Your task to perform on an android device: Search for "bose soundlink mini" on costco, select the first entry, and add it to the cart. Image 0: 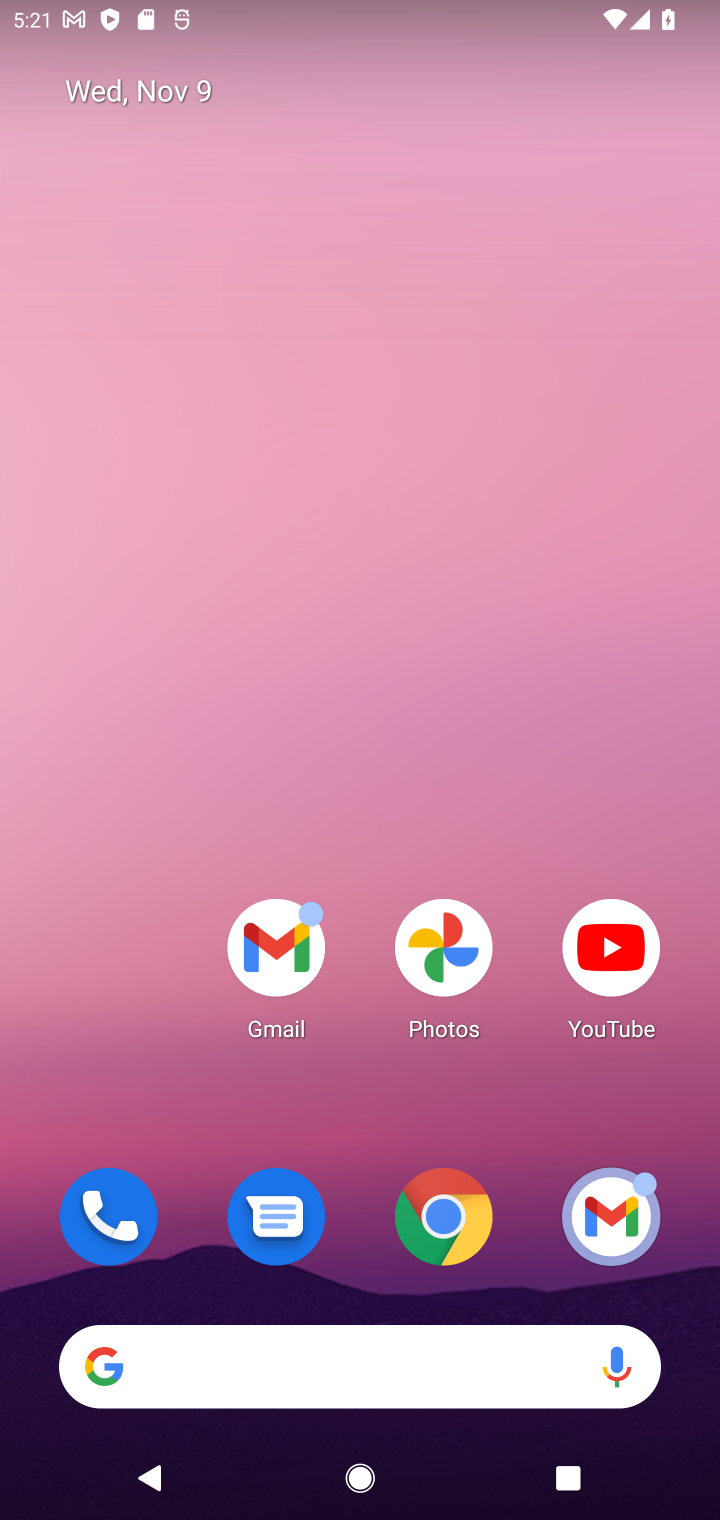
Step 0: drag from (358, 1126) to (412, 125)
Your task to perform on an android device: Search for "bose soundlink mini" on costco, select the first entry, and add it to the cart. Image 1: 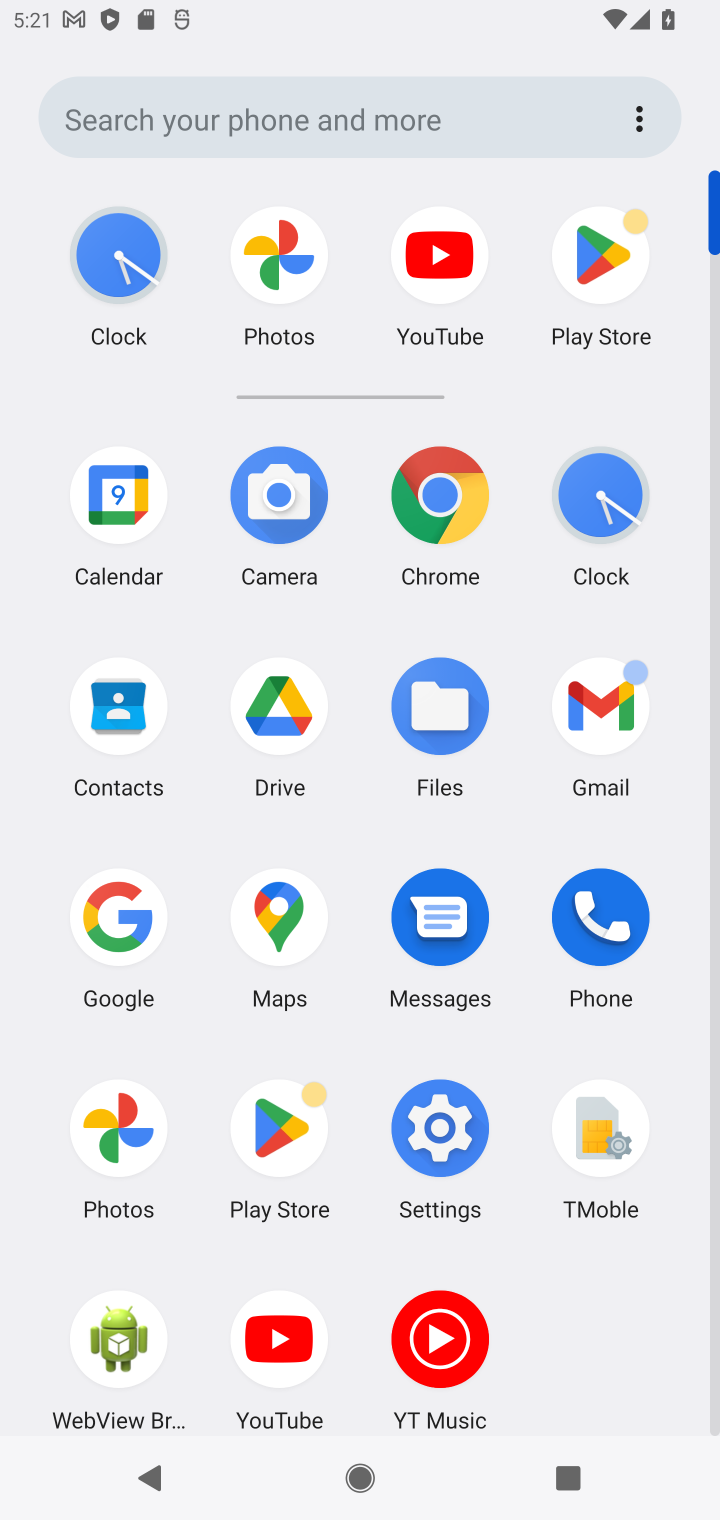
Step 1: click (440, 496)
Your task to perform on an android device: Search for "bose soundlink mini" on costco, select the first entry, and add it to the cart. Image 2: 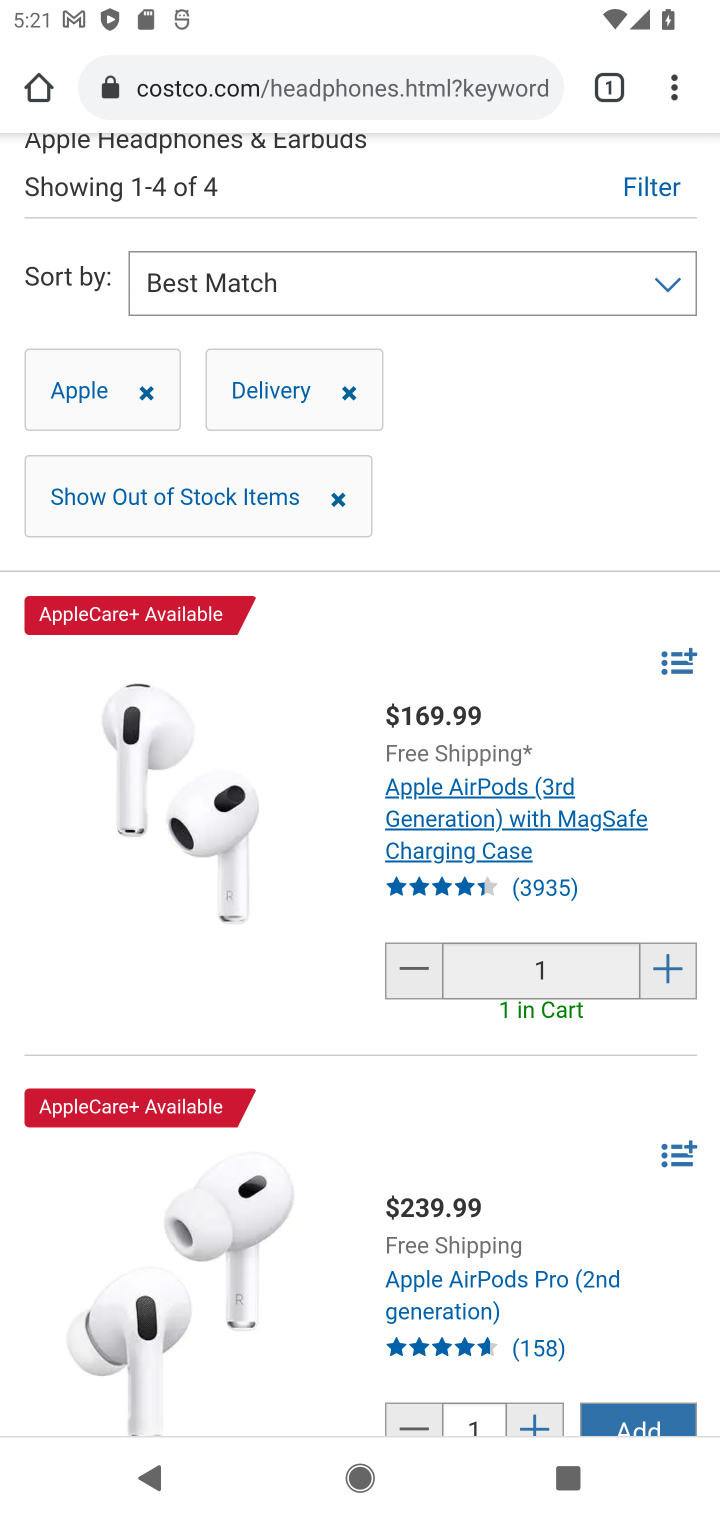
Step 2: drag from (392, 223) to (433, 861)
Your task to perform on an android device: Search for "bose soundlink mini" on costco, select the first entry, and add it to the cart. Image 3: 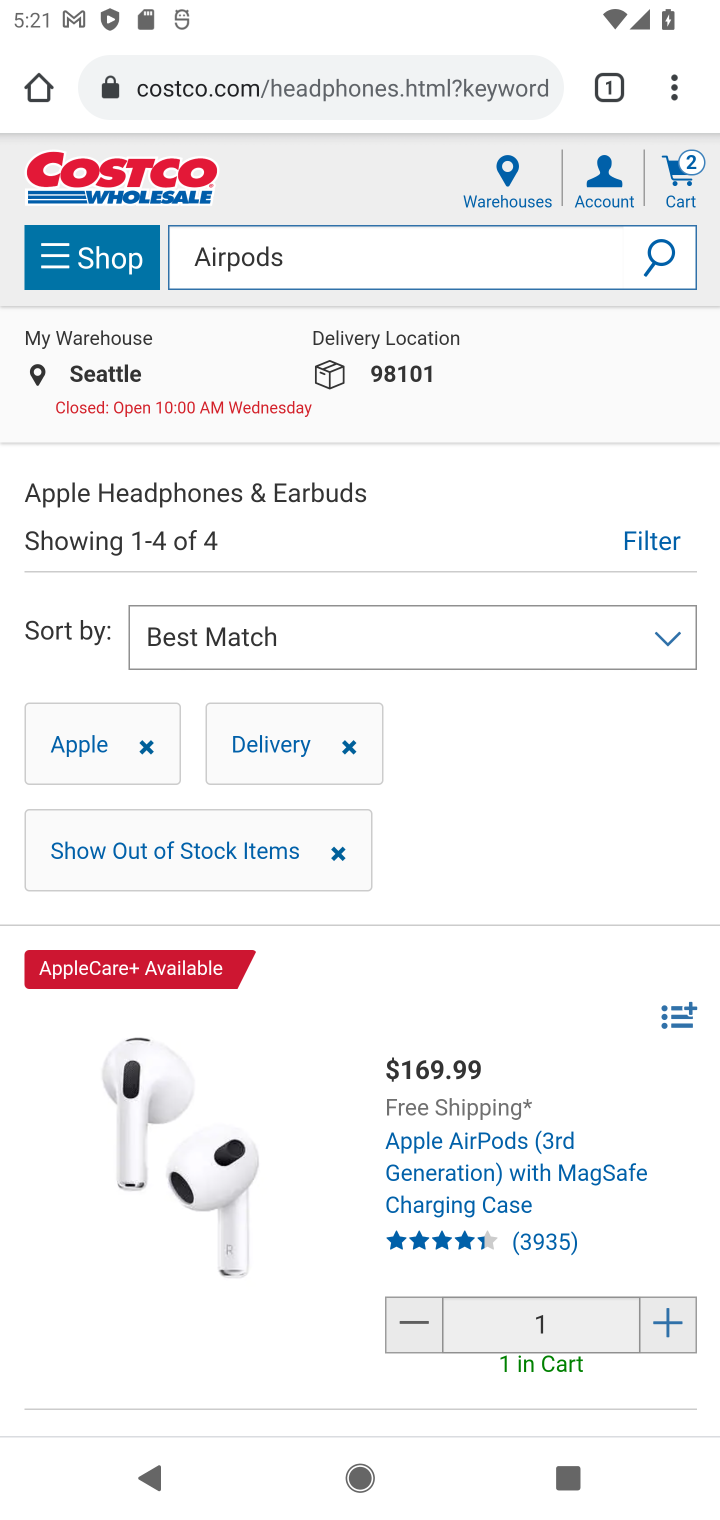
Step 3: click (367, 252)
Your task to perform on an android device: Search for "bose soundlink mini" on costco, select the first entry, and add it to the cart. Image 4: 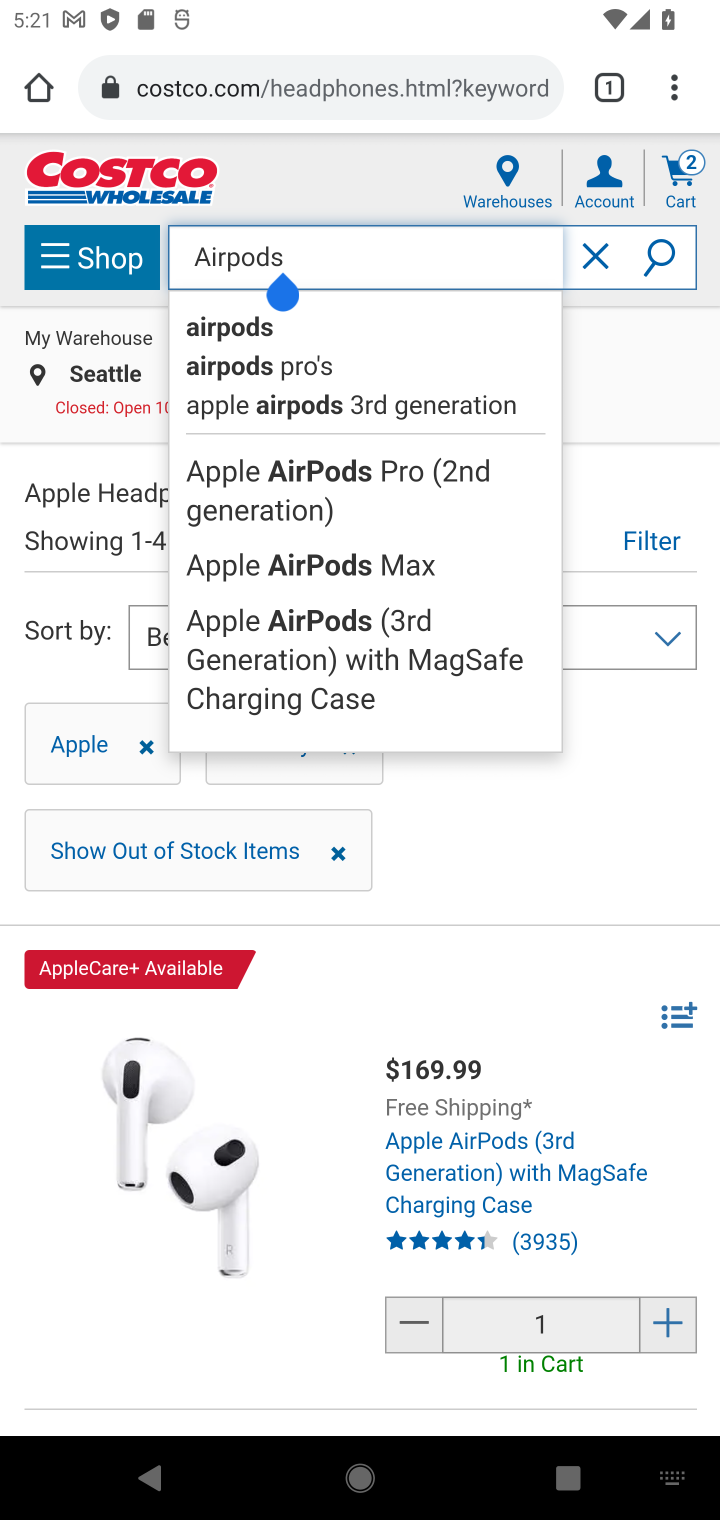
Step 4: click (607, 251)
Your task to perform on an android device: Search for "bose soundlink mini" on costco, select the first entry, and add it to the cart. Image 5: 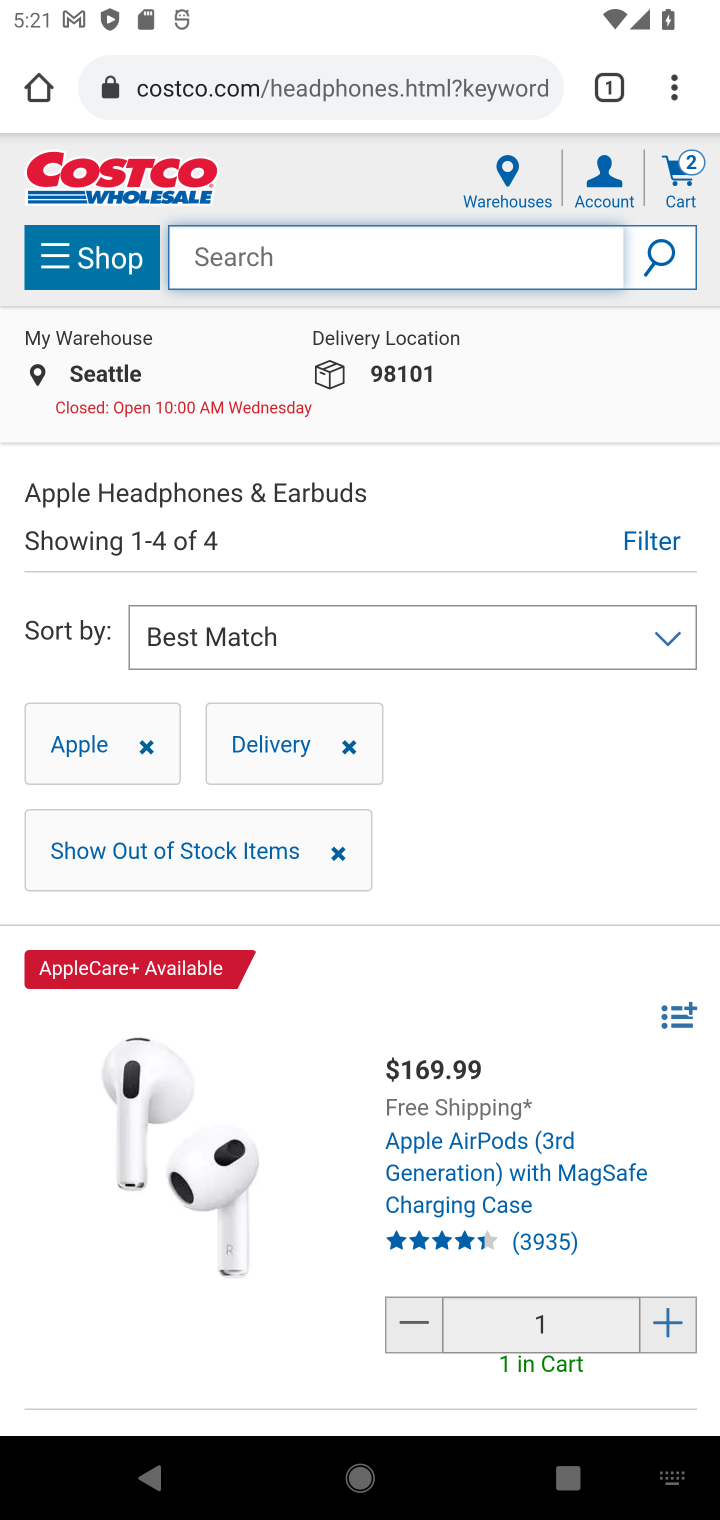
Step 5: type "bose soundlink mini"
Your task to perform on an android device: Search for "bose soundlink mini" on costco, select the first entry, and add it to the cart. Image 6: 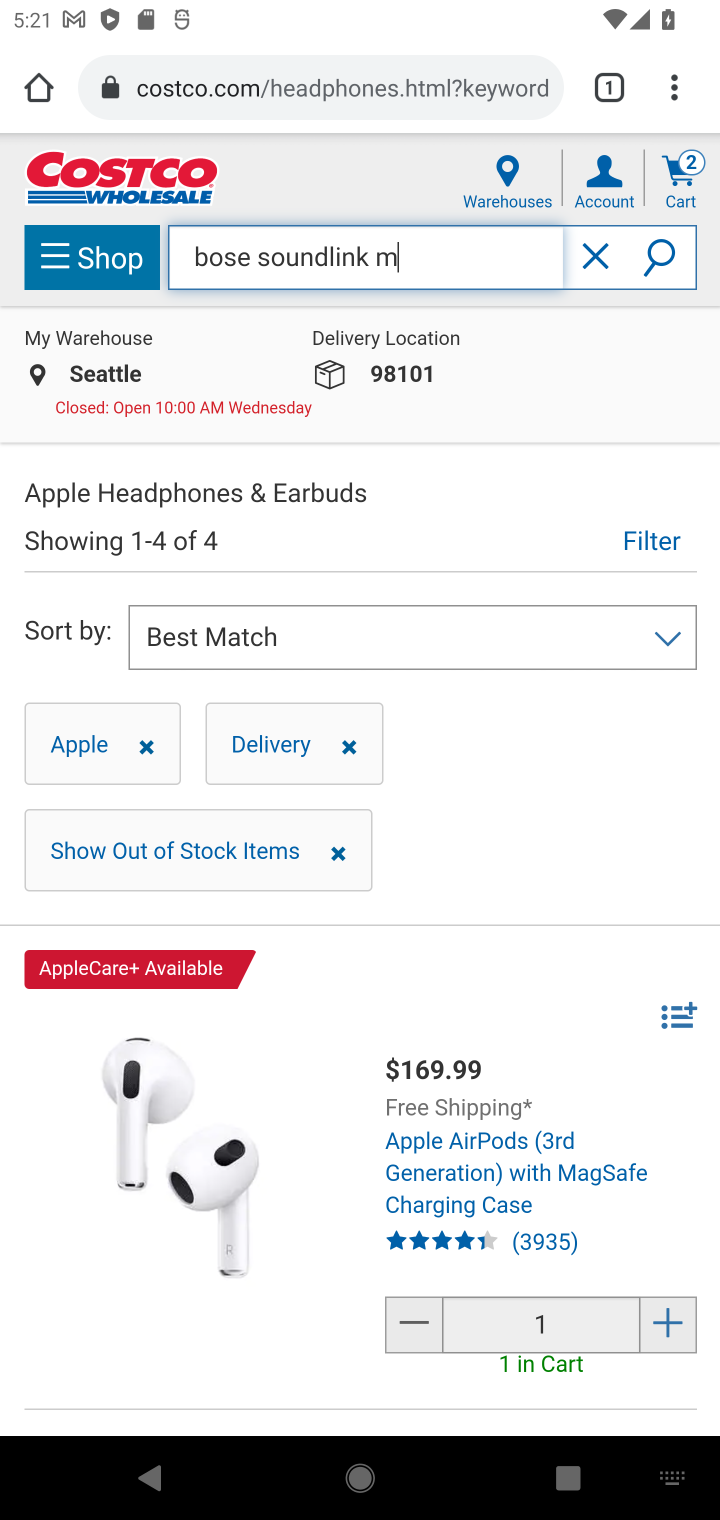
Step 6: press enter
Your task to perform on an android device: Search for "bose soundlink mini" on costco, select the first entry, and add it to the cart. Image 7: 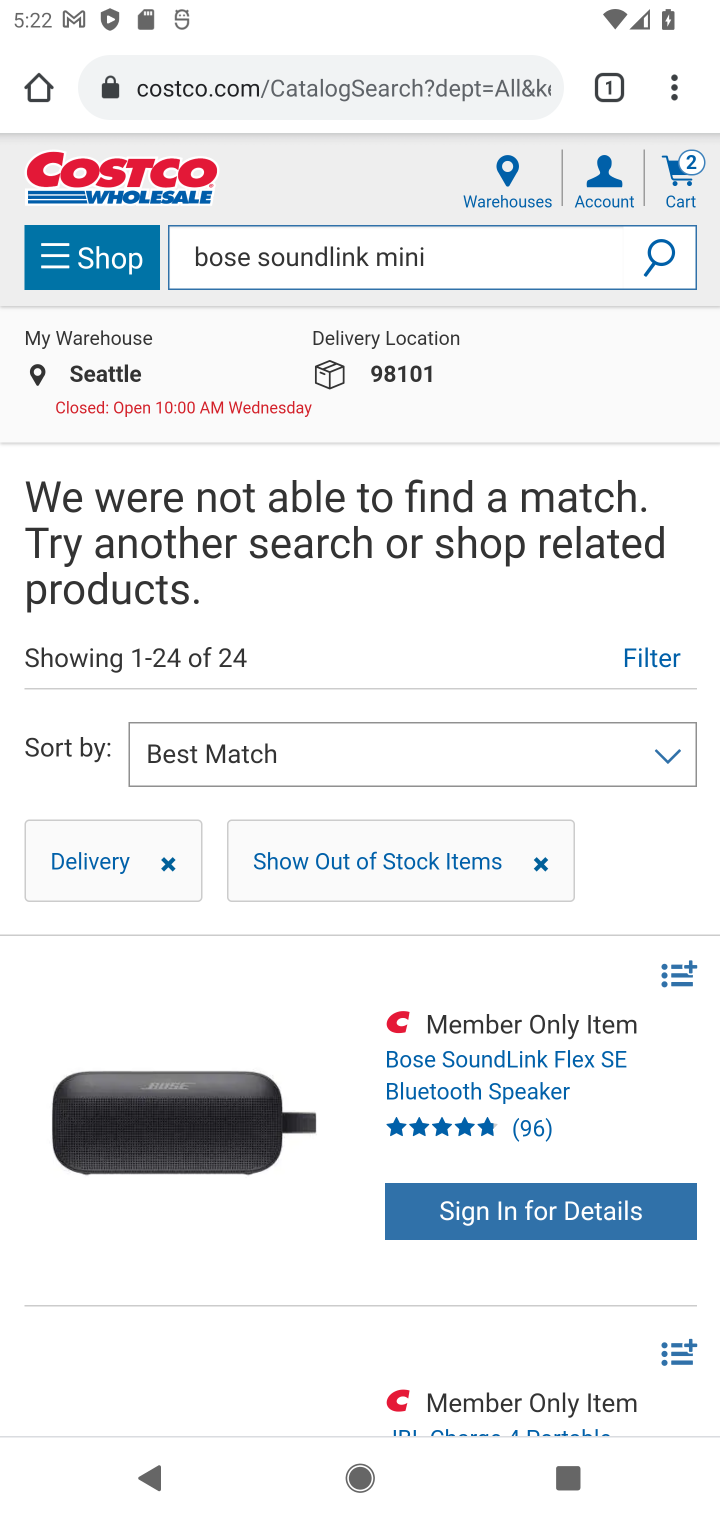
Step 7: task complete